Your task to perform on an android device: Is it going to rain tomorrow? Image 0: 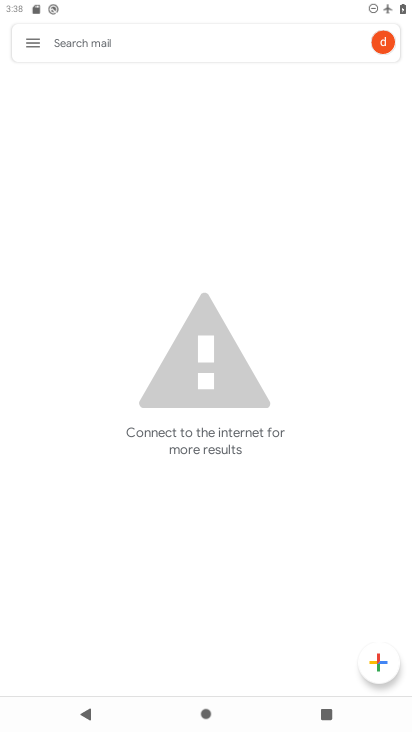
Step 0: press home button
Your task to perform on an android device: Is it going to rain tomorrow? Image 1: 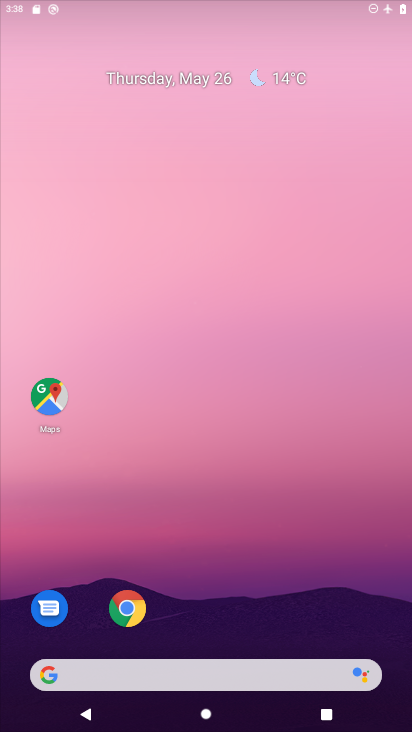
Step 1: drag from (346, 563) to (404, 51)
Your task to perform on an android device: Is it going to rain tomorrow? Image 2: 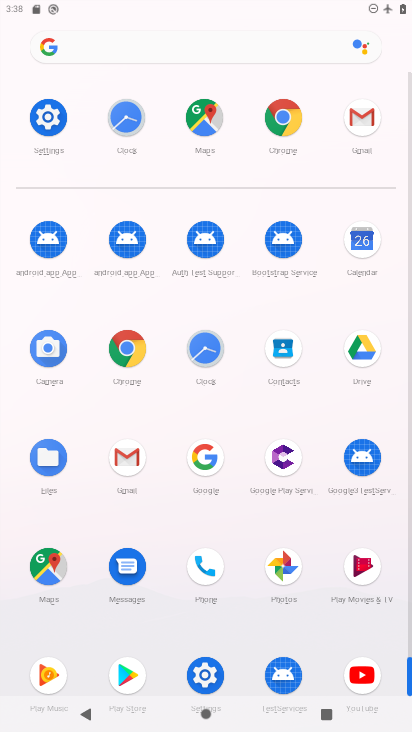
Step 2: click (48, 130)
Your task to perform on an android device: Is it going to rain tomorrow? Image 3: 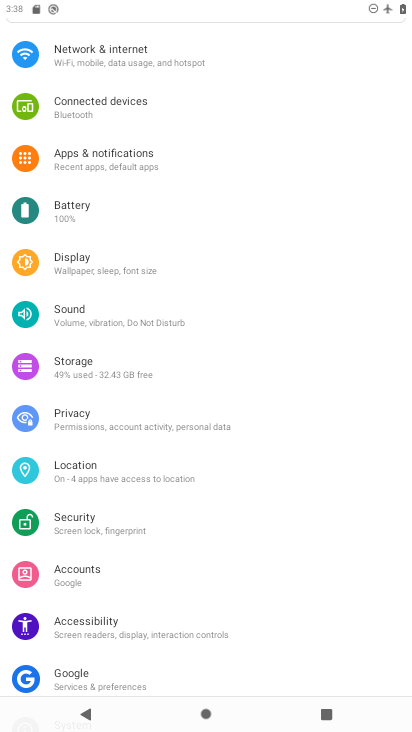
Step 3: drag from (170, 124) to (211, 619)
Your task to perform on an android device: Is it going to rain tomorrow? Image 4: 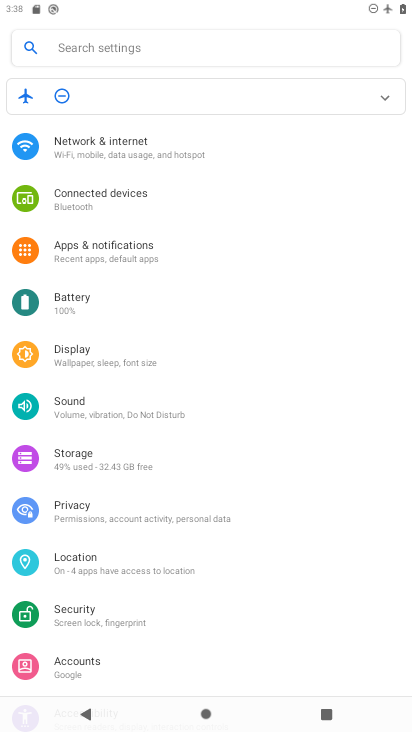
Step 4: click (112, 147)
Your task to perform on an android device: Is it going to rain tomorrow? Image 5: 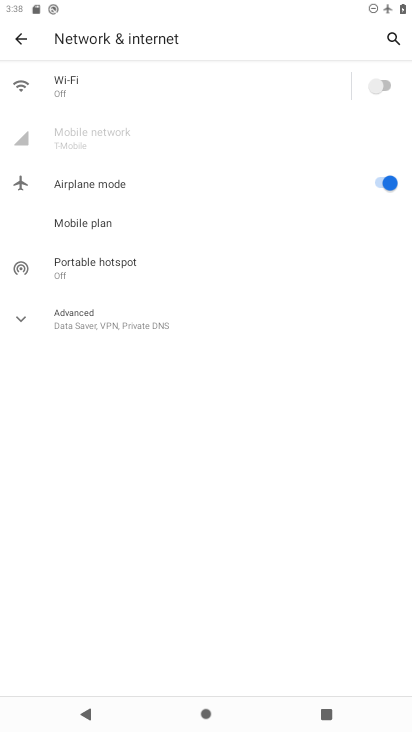
Step 5: click (381, 185)
Your task to perform on an android device: Is it going to rain tomorrow? Image 6: 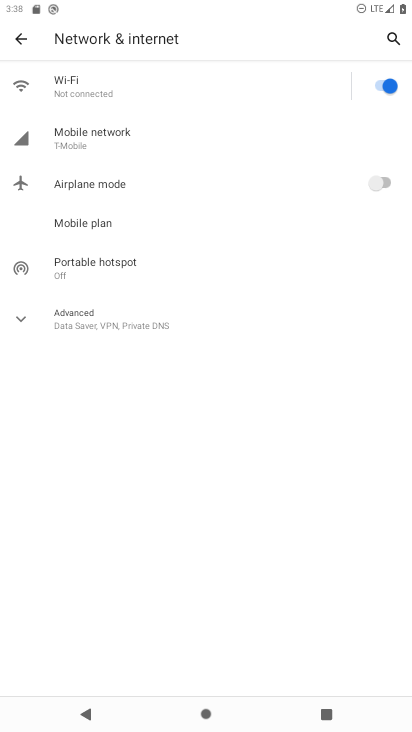
Step 6: task complete